Your task to perform on an android device: Open ESPN.com Image 0: 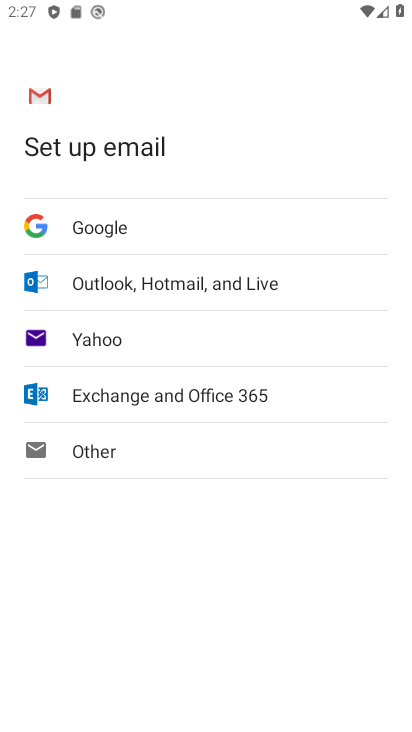
Step 0: press home button
Your task to perform on an android device: Open ESPN.com Image 1: 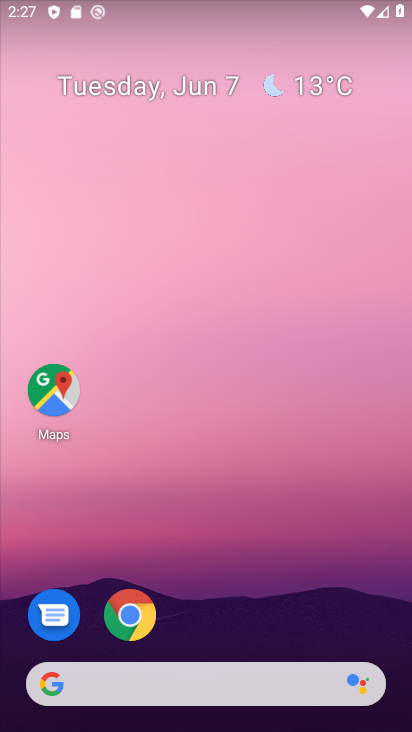
Step 1: click (121, 627)
Your task to perform on an android device: Open ESPN.com Image 2: 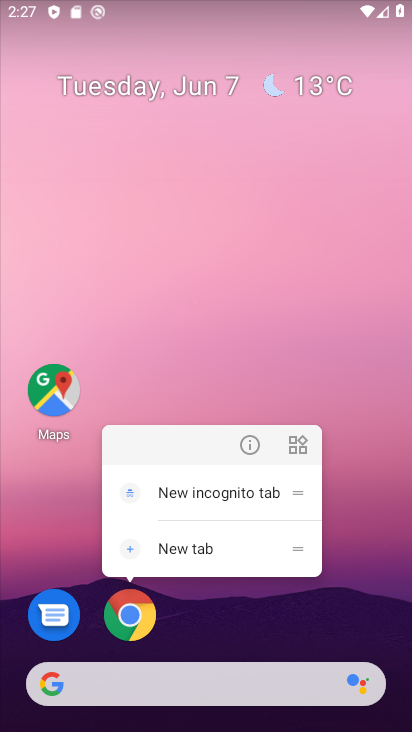
Step 2: click (123, 627)
Your task to perform on an android device: Open ESPN.com Image 3: 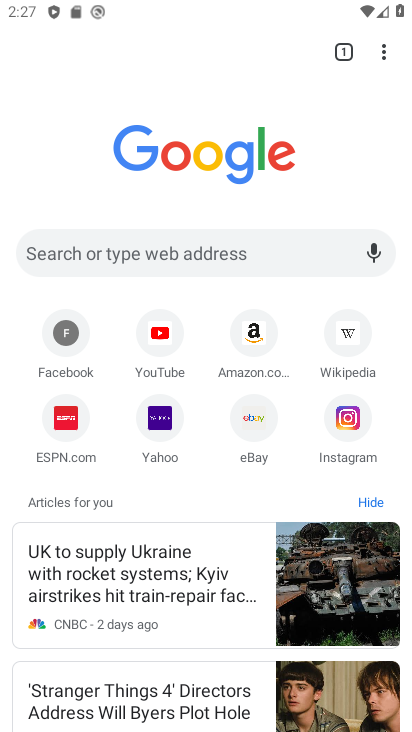
Step 3: click (81, 434)
Your task to perform on an android device: Open ESPN.com Image 4: 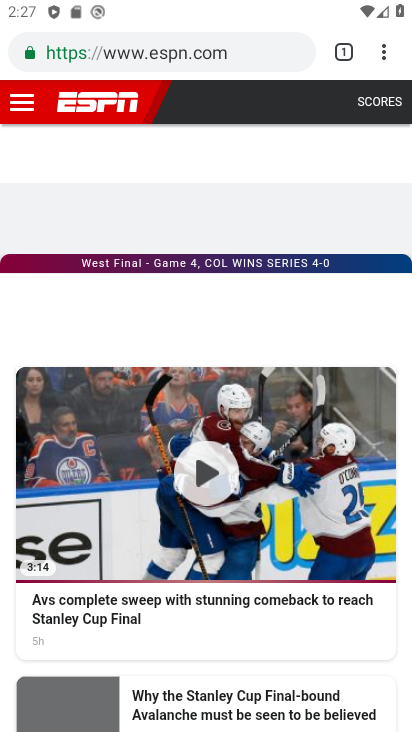
Step 4: task complete